Your task to perform on an android device: Clear all items from cart on newegg.com. Image 0: 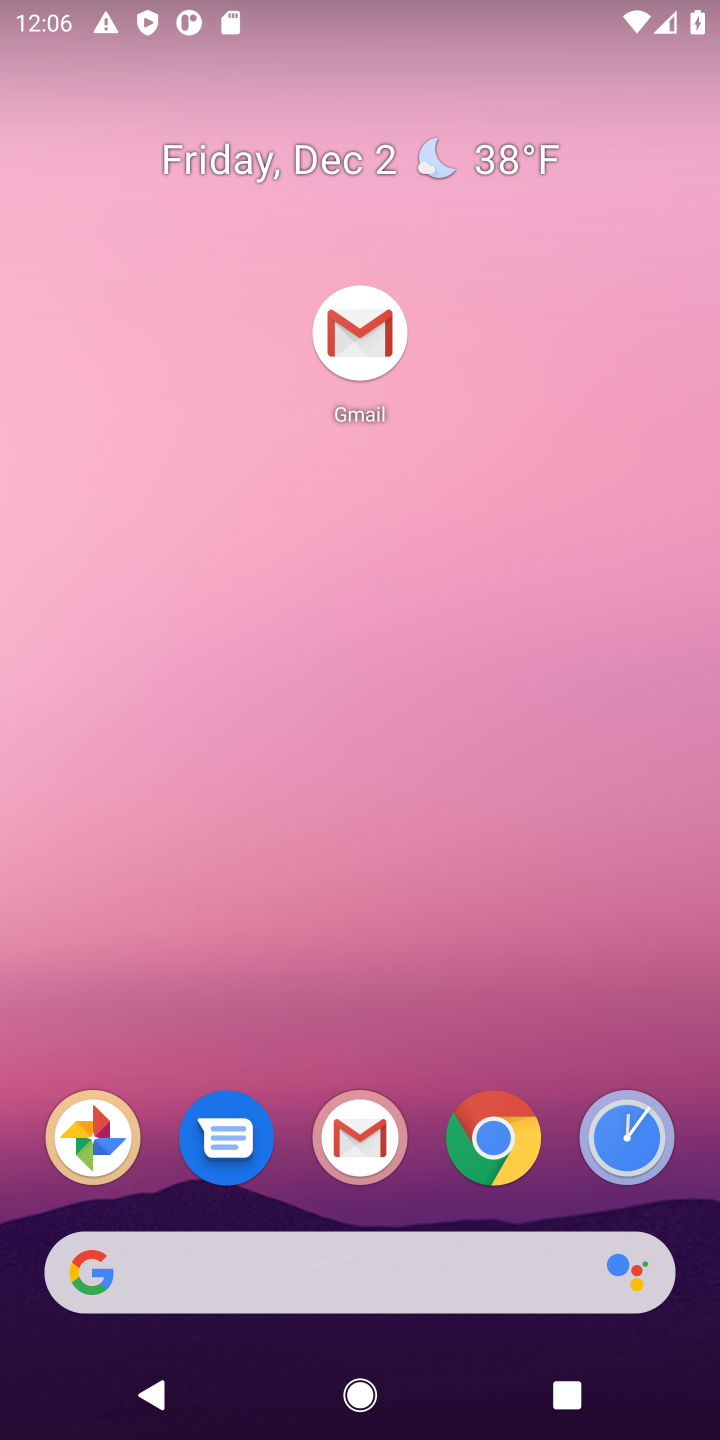
Step 0: drag from (493, 1065) to (339, 437)
Your task to perform on an android device: Clear all items from cart on newegg.com. Image 1: 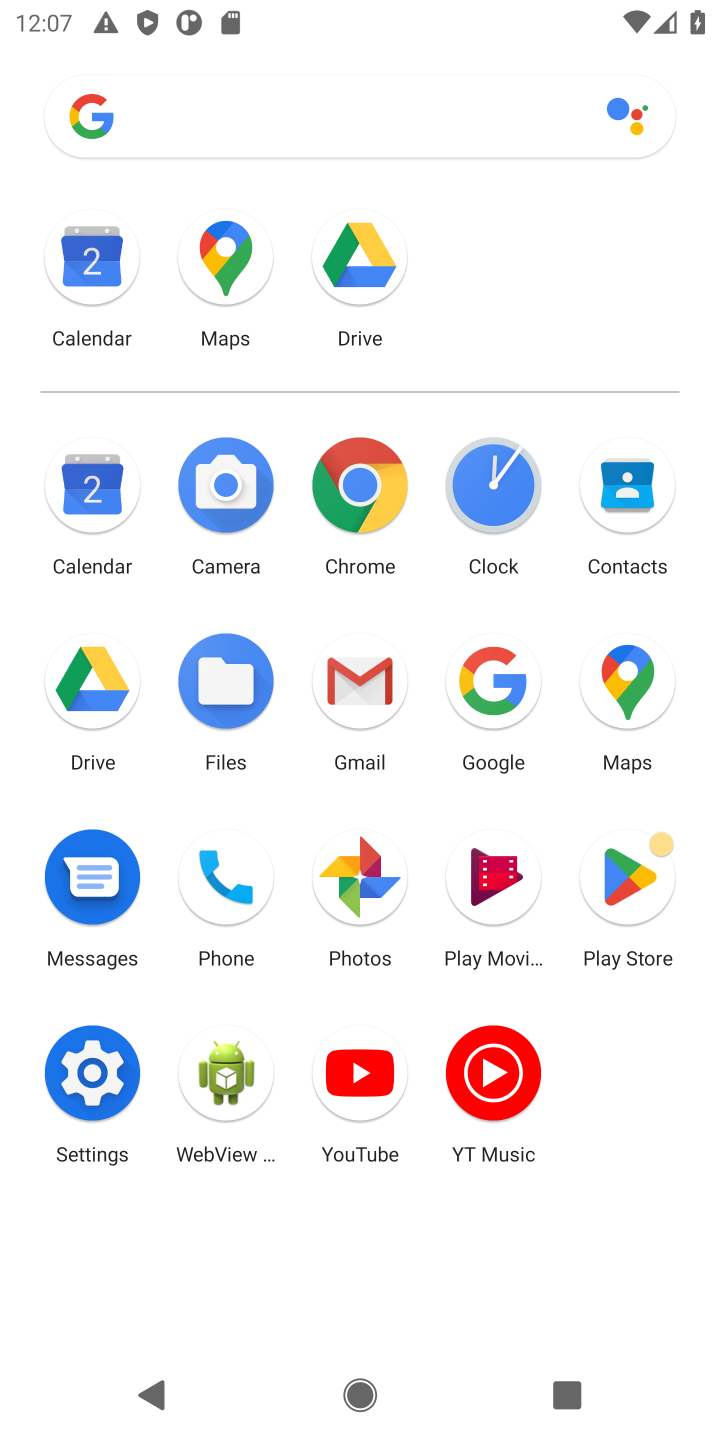
Step 1: click (388, 485)
Your task to perform on an android device: Clear all items from cart on newegg.com. Image 2: 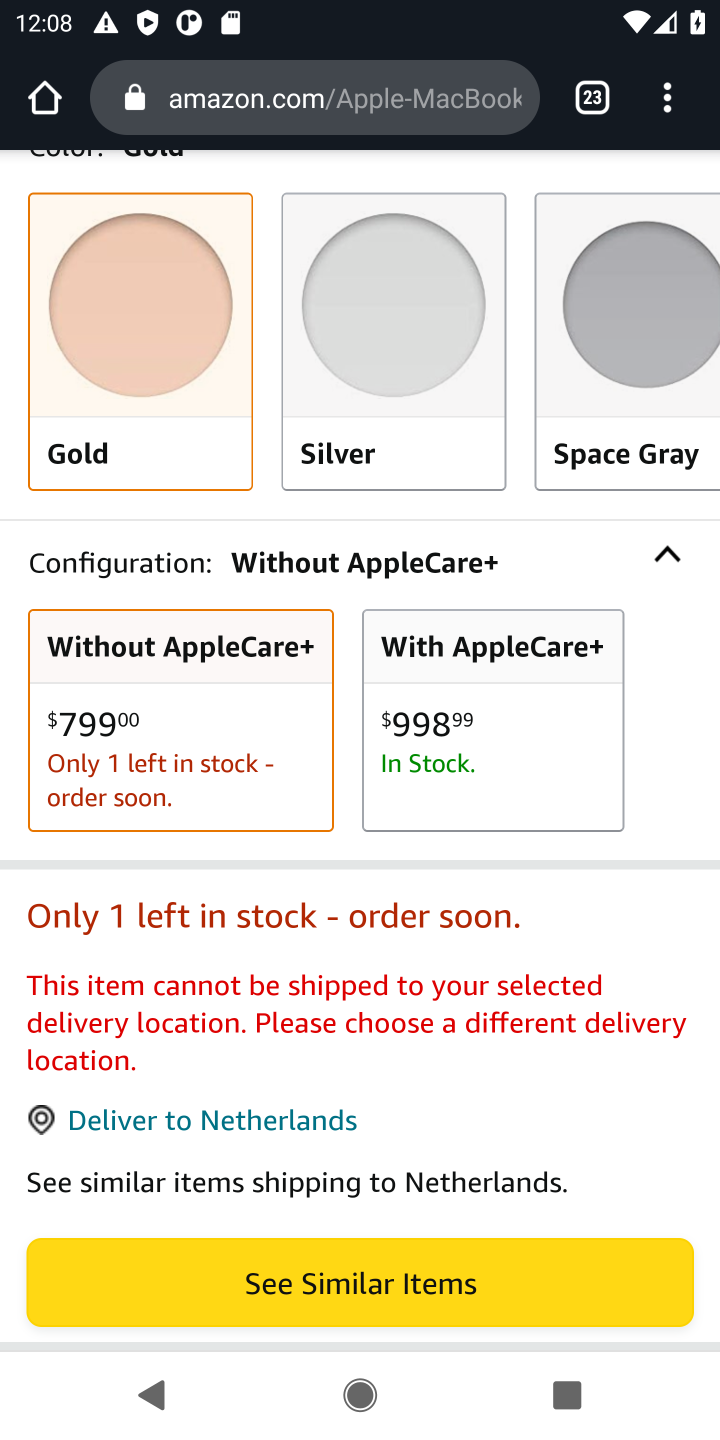
Step 2: click (309, 53)
Your task to perform on an android device: Clear all items from cart on newegg.com. Image 3: 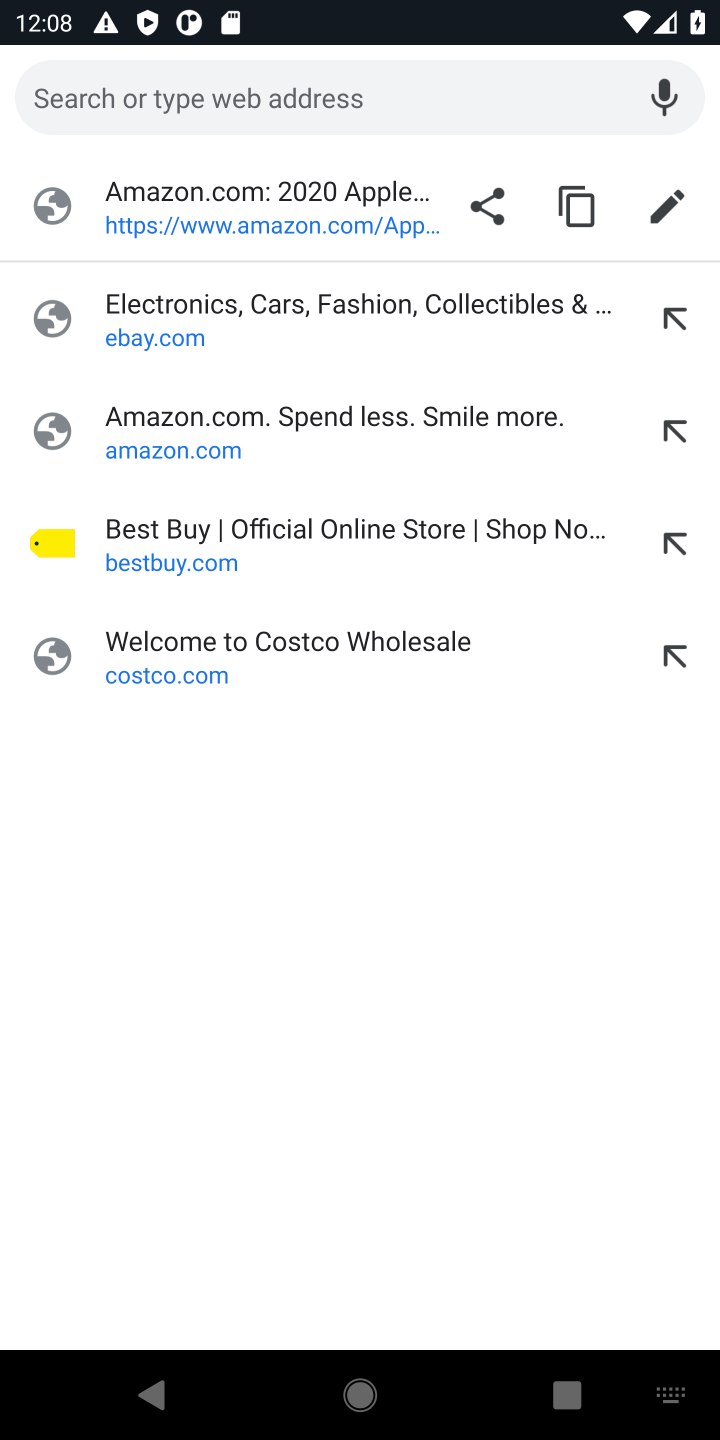
Step 3: type "newegg.com"
Your task to perform on an android device: Clear all items from cart on newegg.com. Image 4: 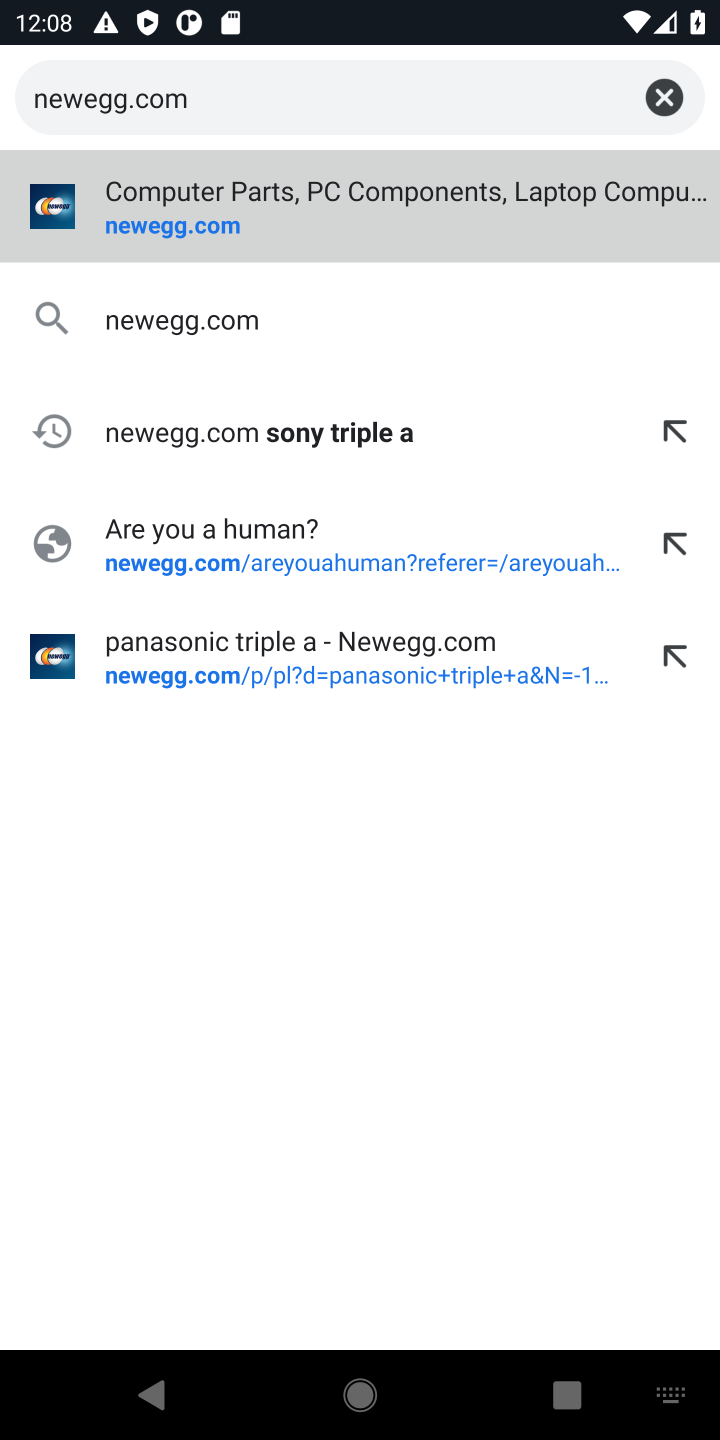
Step 4: click (227, 205)
Your task to perform on an android device: Clear all items from cart on newegg.com. Image 5: 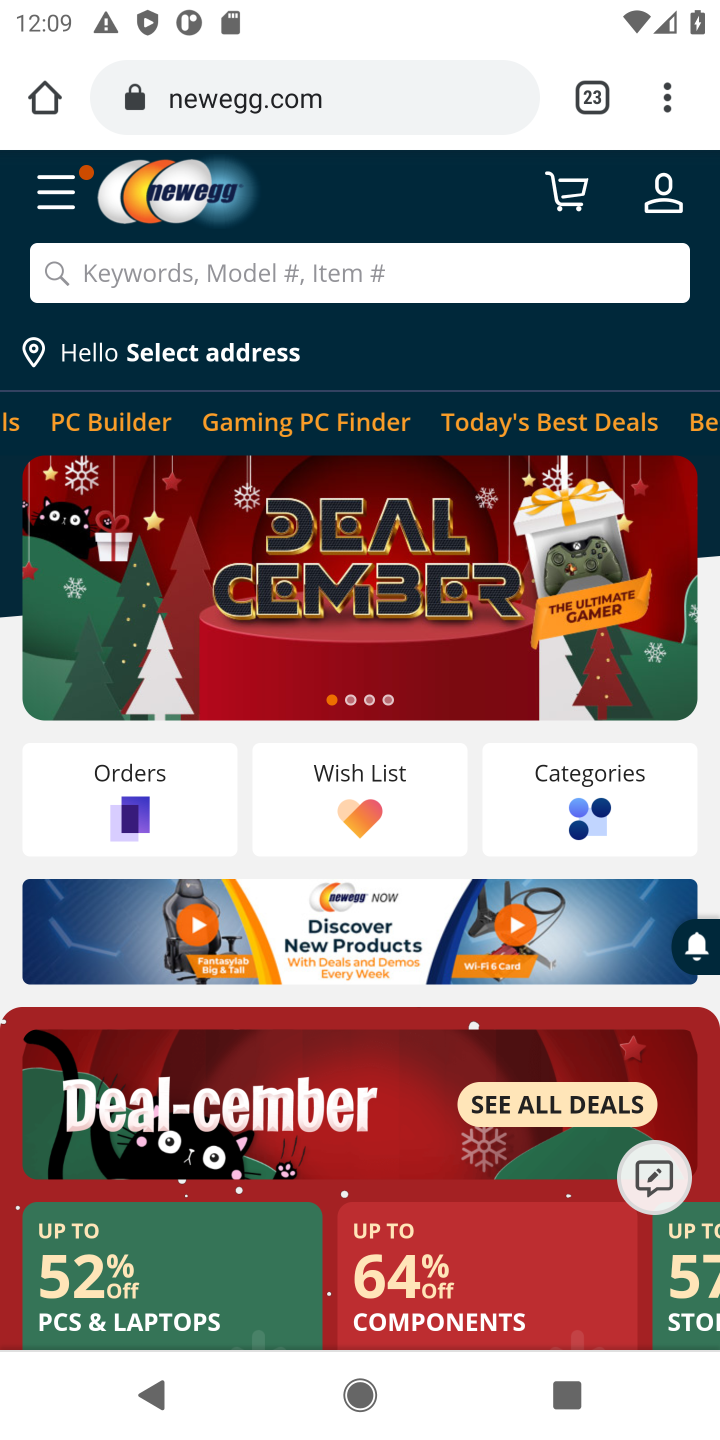
Step 5: click (571, 208)
Your task to perform on an android device: Clear all items from cart on newegg.com. Image 6: 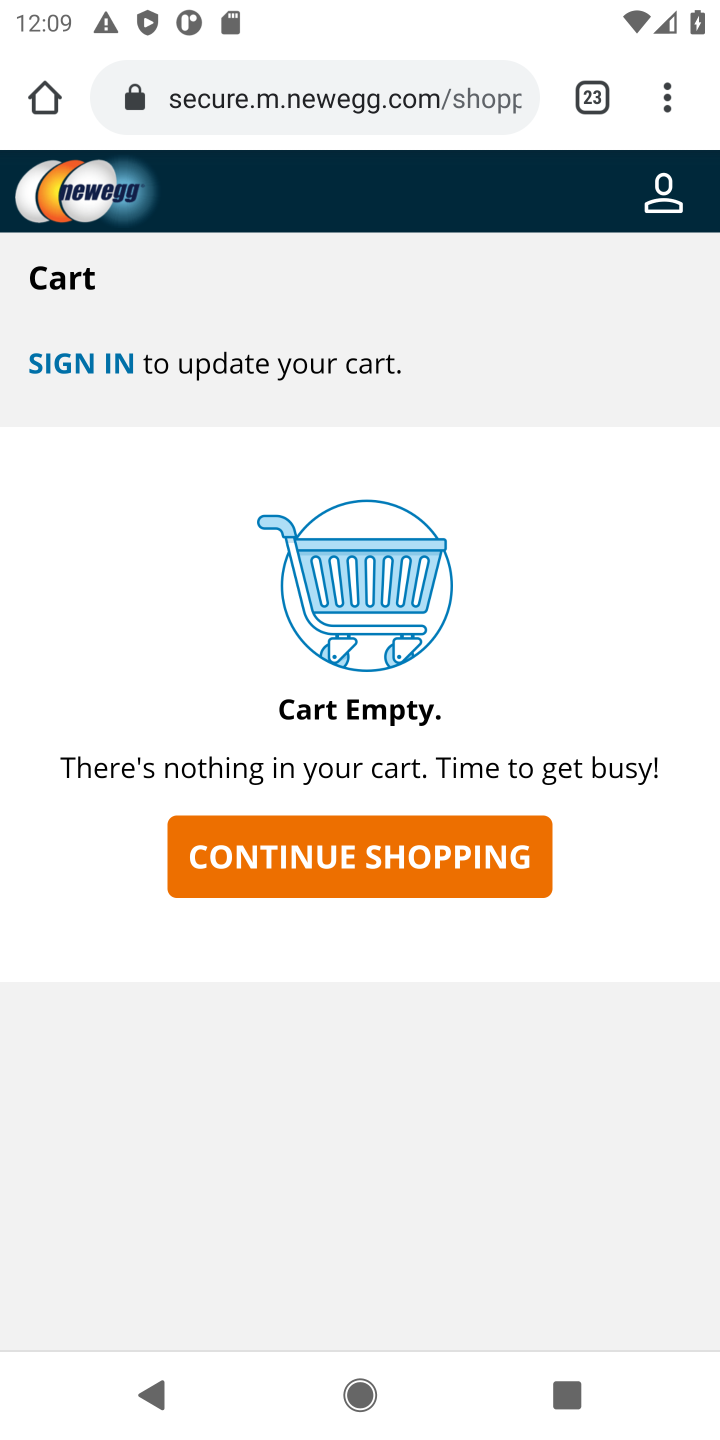
Step 6: task complete